Your task to perform on an android device: Open sound settings Image 0: 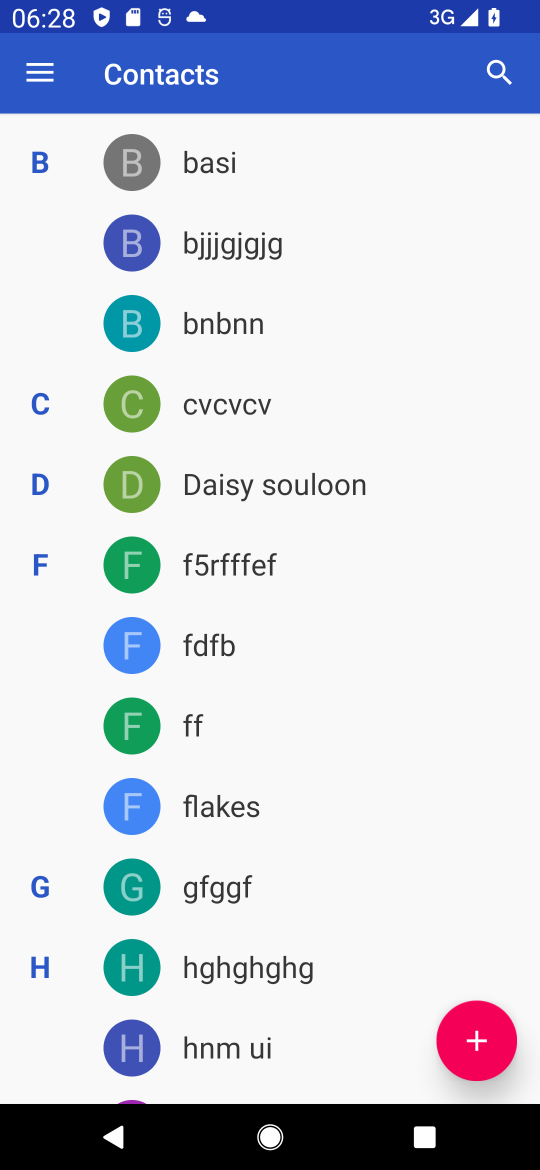
Step 0: press home button
Your task to perform on an android device: Open sound settings Image 1: 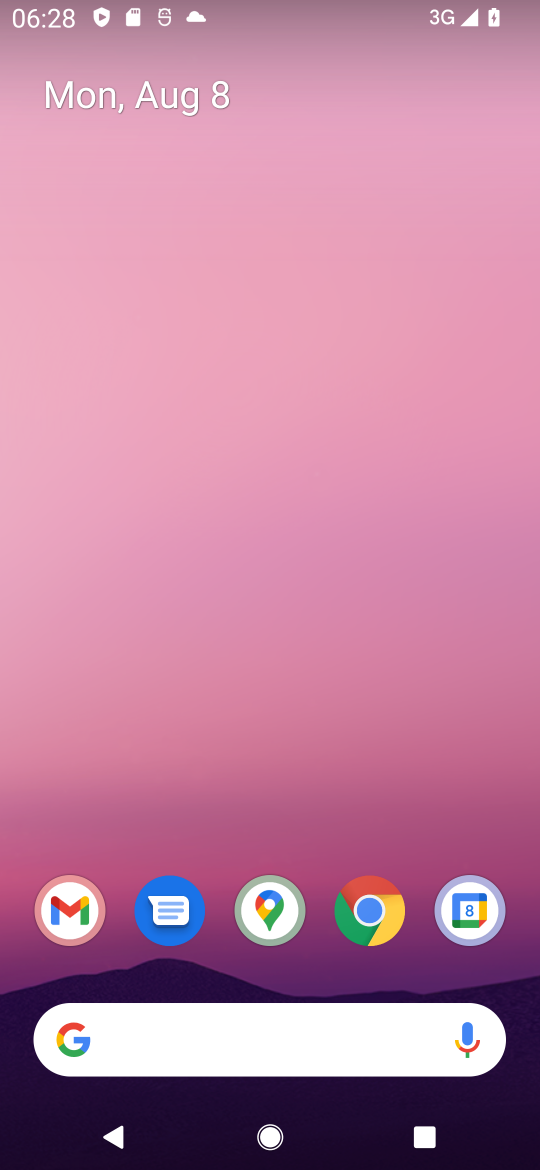
Step 1: drag from (267, 1047) to (276, 425)
Your task to perform on an android device: Open sound settings Image 2: 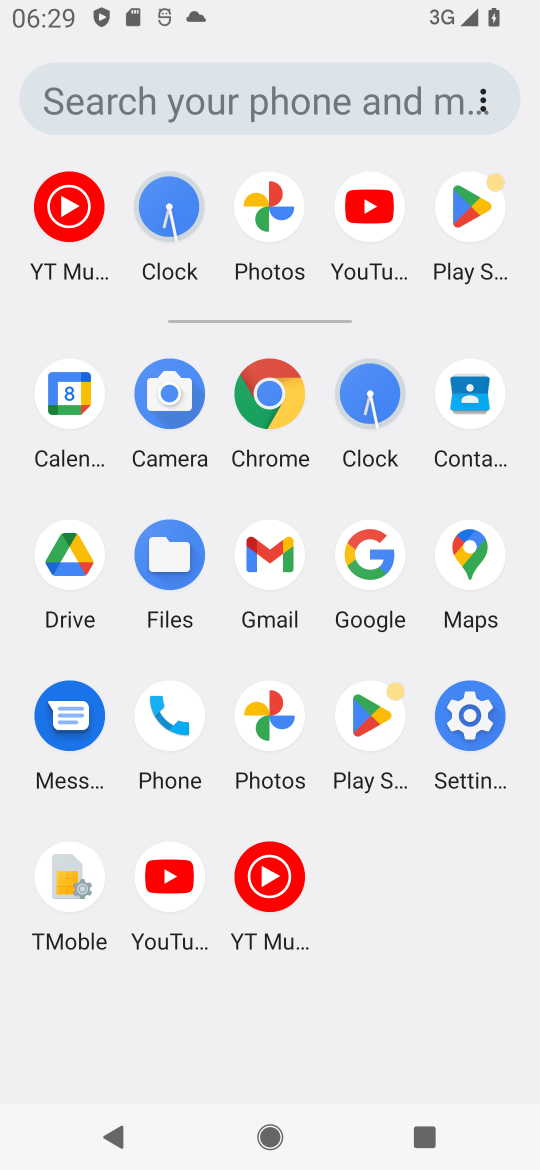
Step 2: click (468, 715)
Your task to perform on an android device: Open sound settings Image 3: 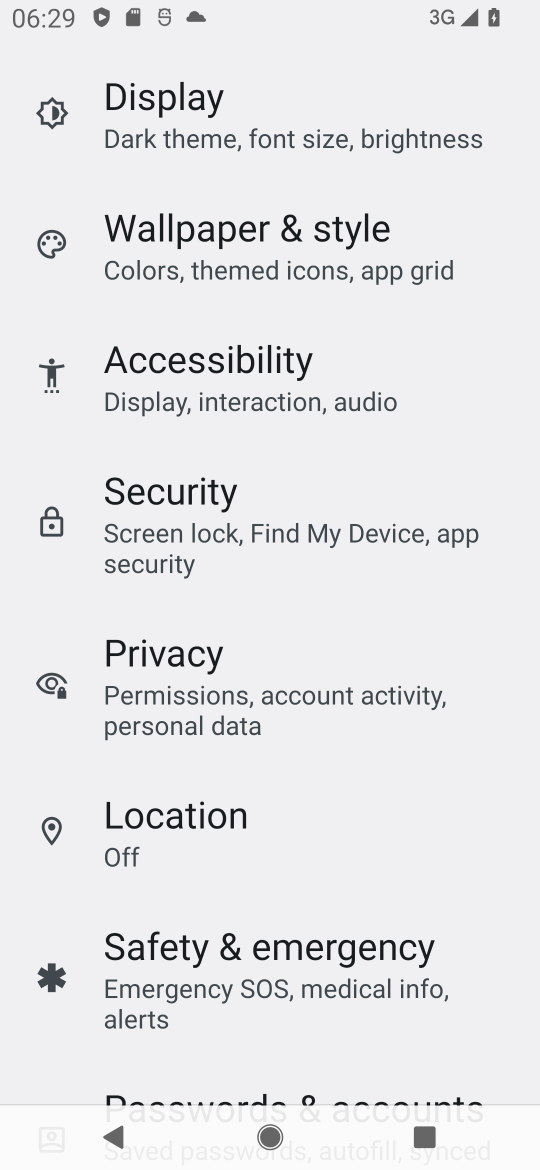
Step 3: drag from (306, 832) to (394, 614)
Your task to perform on an android device: Open sound settings Image 4: 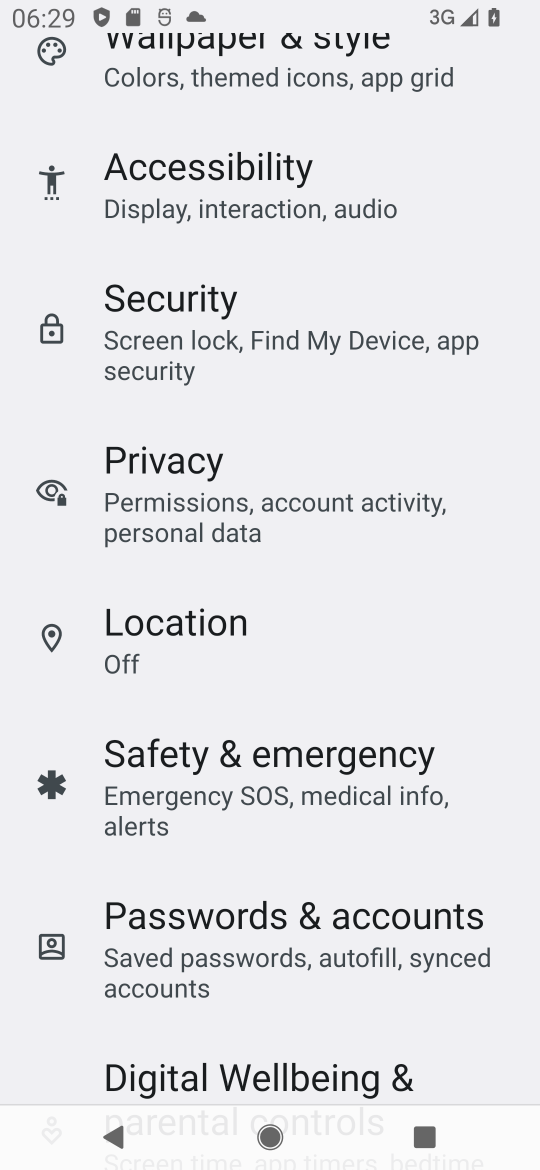
Step 4: drag from (267, 989) to (338, 772)
Your task to perform on an android device: Open sound settings Image 5: 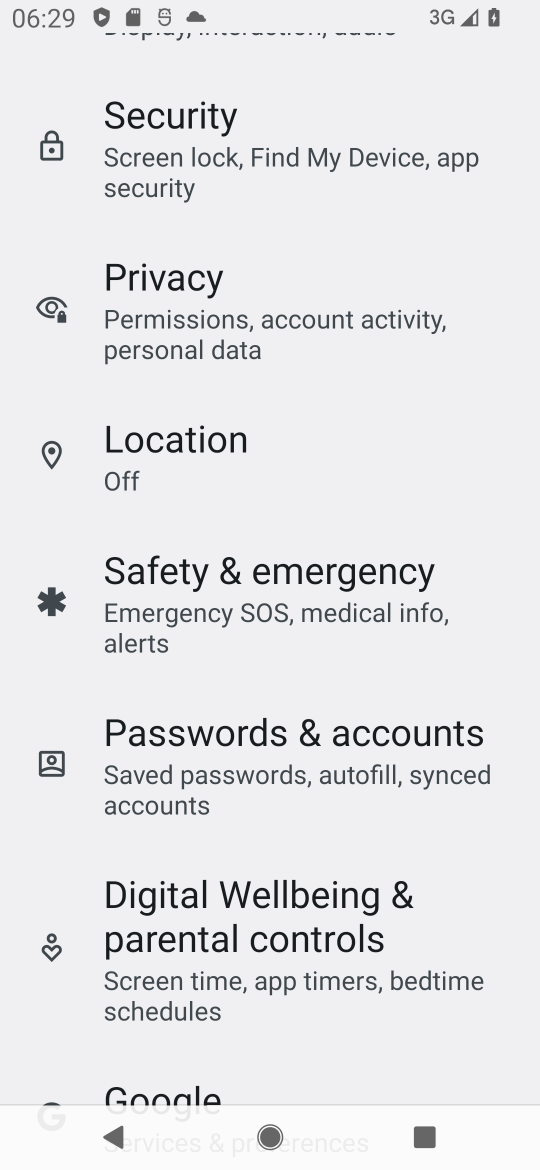
Step 5: drag from (293, 389) to (283, 590)
Your task to perform on an android device: Open sound settings Image 6: 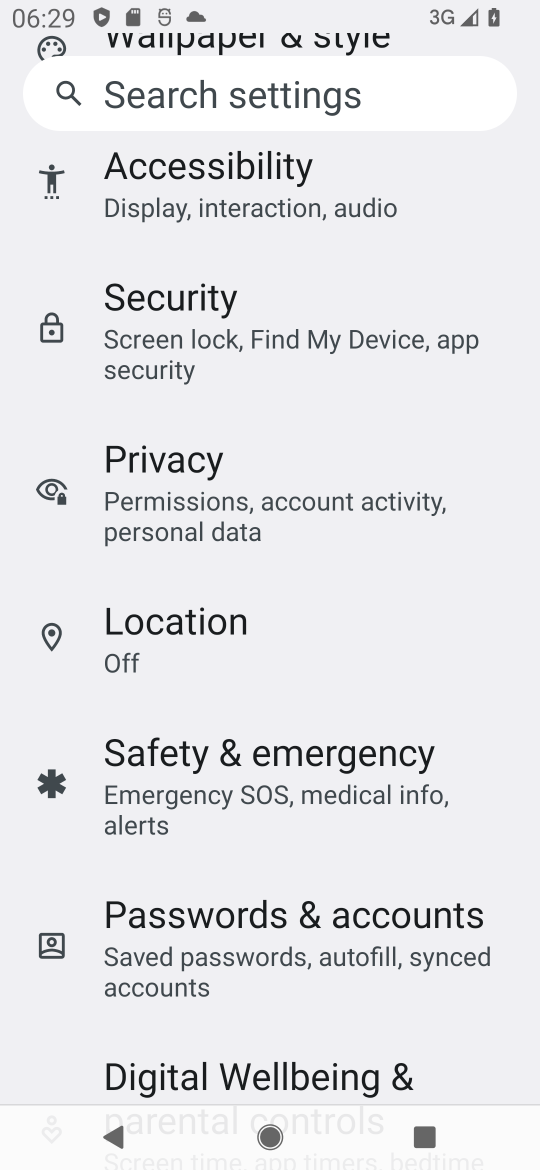
Step 6: drag from (278, 261) to (389, 677)
Your task to perform on an android device: Open sound settings Image 7: 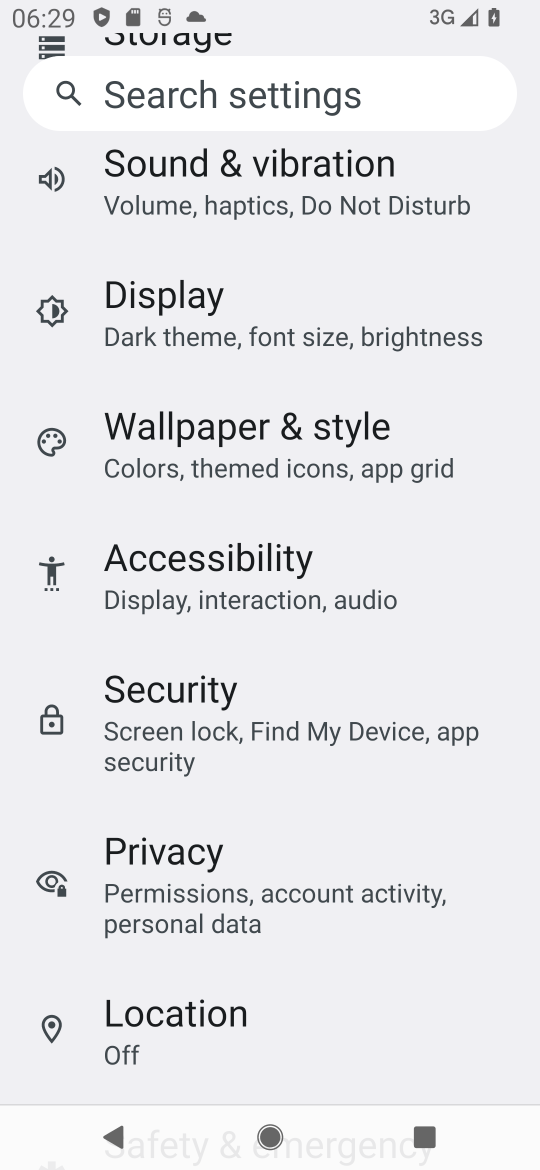
Step 7: drag from (319, 389) to (361, 804)
Your task to perform on an android device: Open sound settings Image 8: 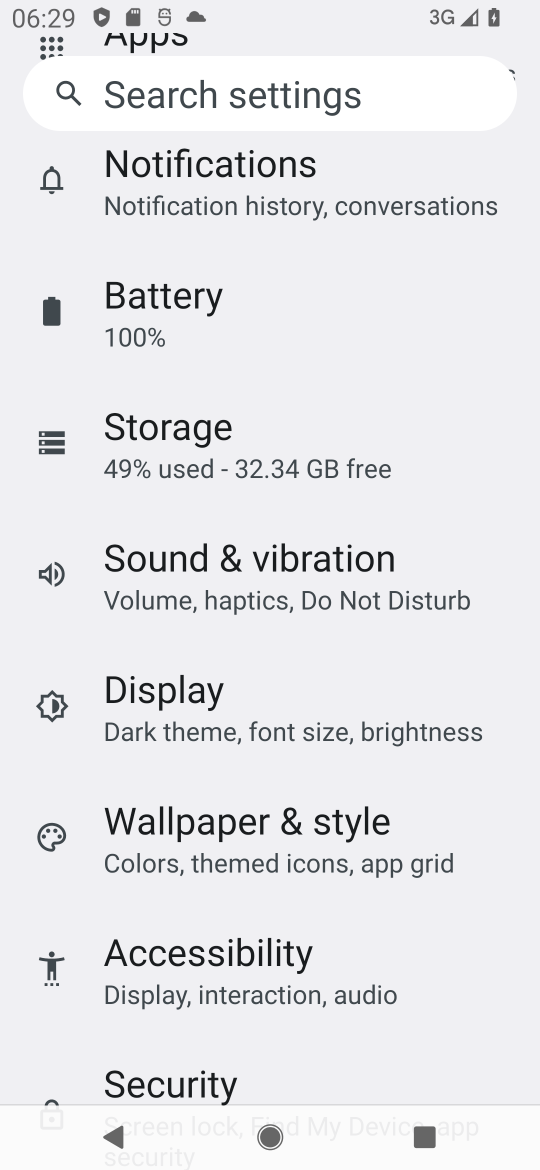
Step 8: click (276, 561)
Your task to perform on an android device: Open sound settings Image 9: 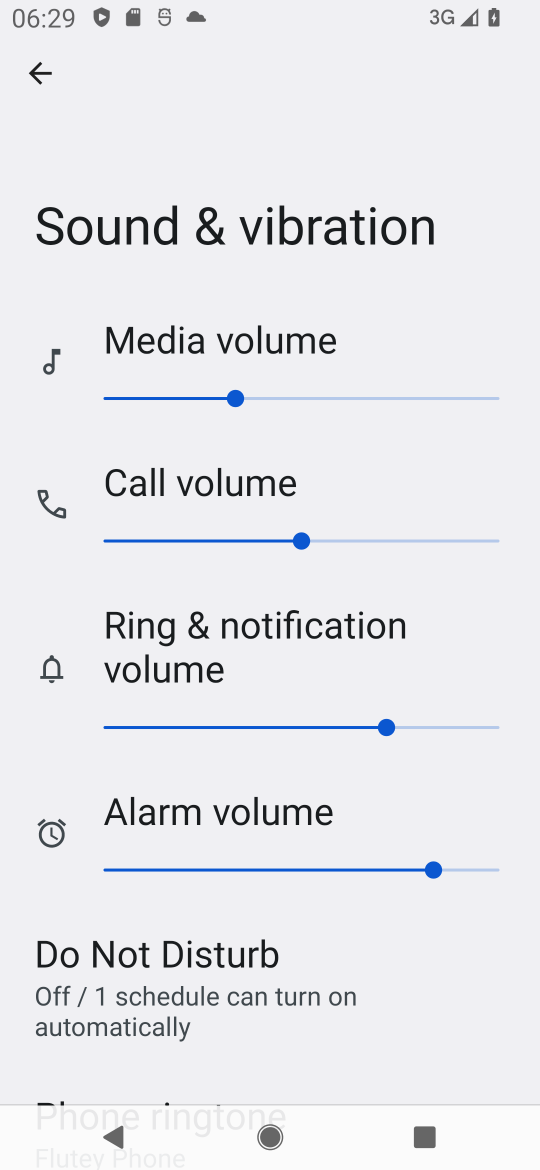
Step 9: task complete